Your task to perform on an android device: read, delete, or share a saved page in the chrome app Image 0: 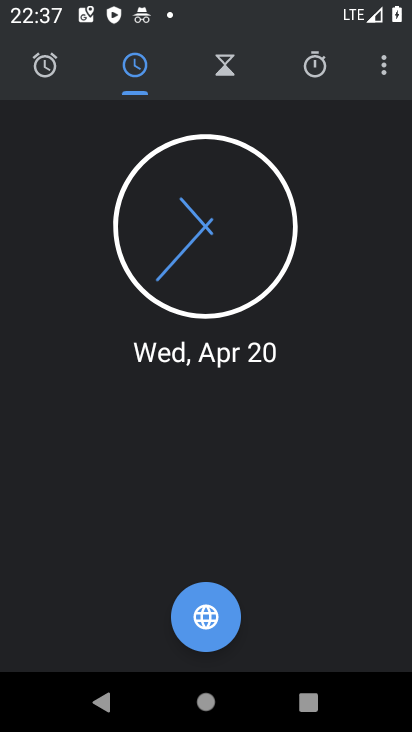
Step 0: press home button
Your task to perform on an android device: read, delete, or share a saved page in the chrome app Image 1: 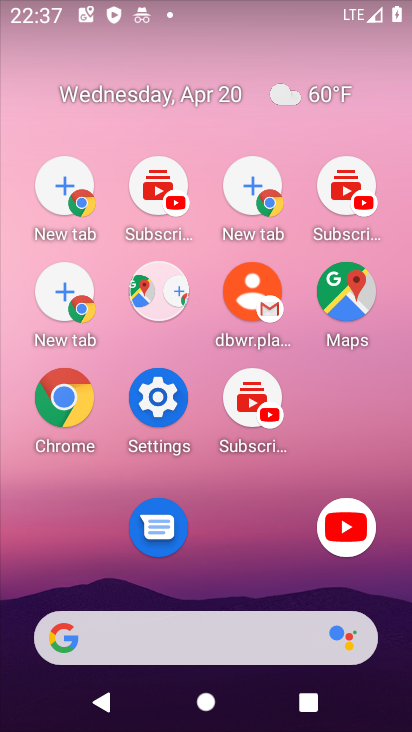
Step 1: drag from (305, 584) to (247, 100)
Your task to perform on an android device: read, delete, or share a saved page in the chrome app Image 2: 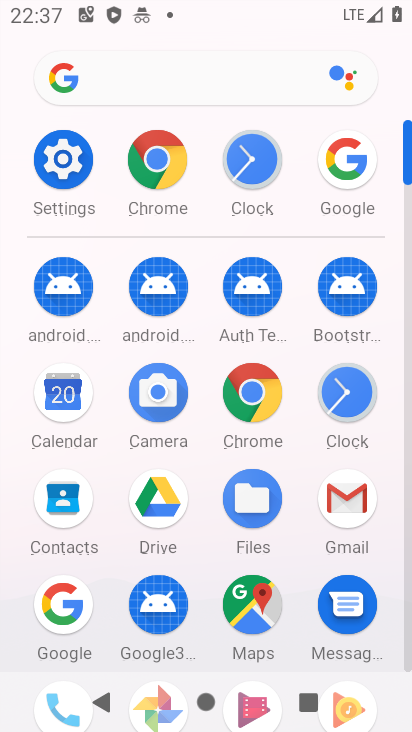
Step 2: click (159, 155)
Your task to perform on an android device: read, delete, or share a saved page in the chrome app Image 3: 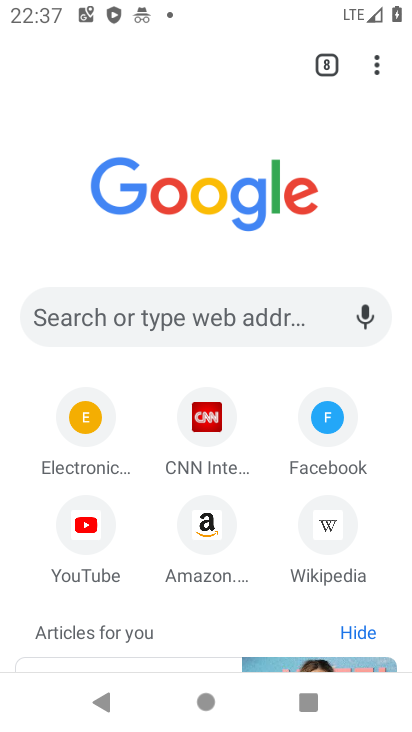
Step 3: drag from (372, 54) to (161, 447)
Your task to perform on an android device: read, delete, or share a saved page in the chrome app Image 4: 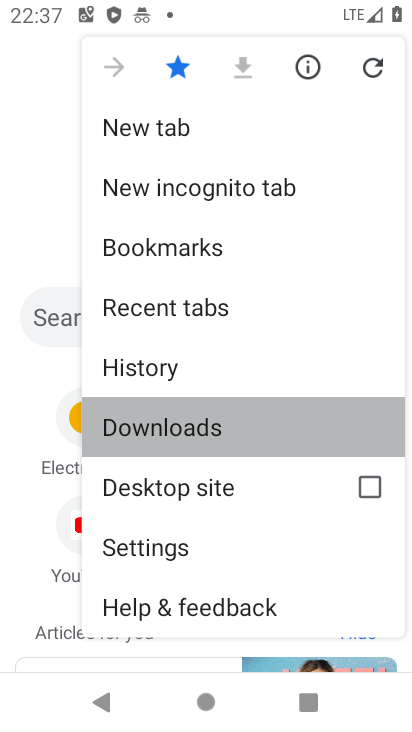
Step 4: click (161, 447)
Your task to perform on an android device: read, delete, or share a saved page in the chrome app Image 5: 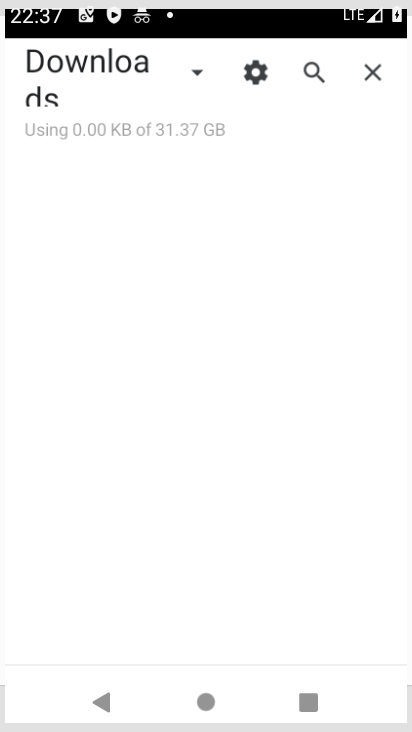
Step 5: click (161, 447)
Your task to perform on an android device: read, delete, or share a saved page in the chrome app Image 6: 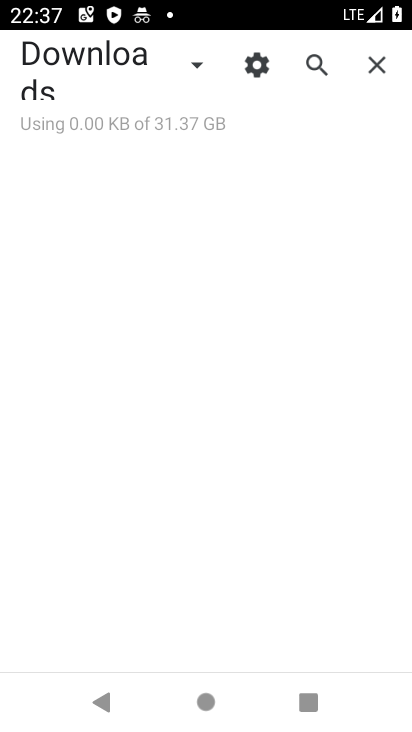
Step 6: click (196, 63)
Your task to perform on an android device: read, delete, or share a saved page in the chrome app Image 7: 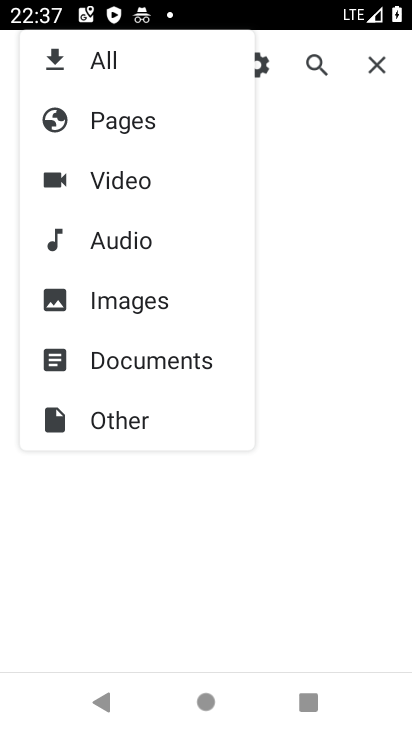
Step 7: click (141, 114)
Your task to perform on an android device: read, delete, or share a saved page in the chrome app Image 8: 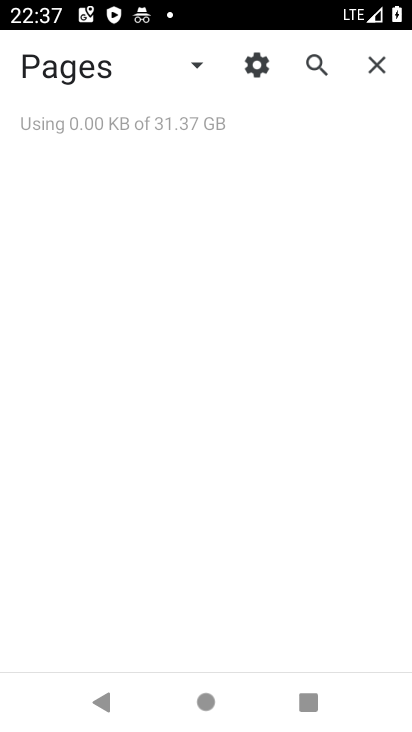
Step 8: task complete